Your task to perform on an android device: See recent photos Image 0: 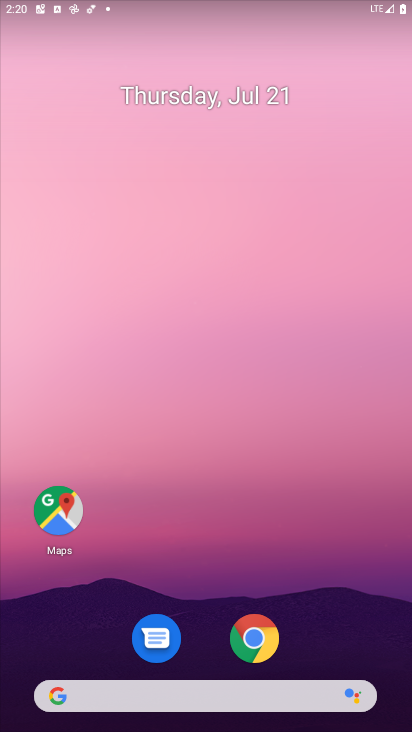
Step 0: drag from (235, 708) to (154, 114)
Your task to perform on an android device: See recent photos Image 1: 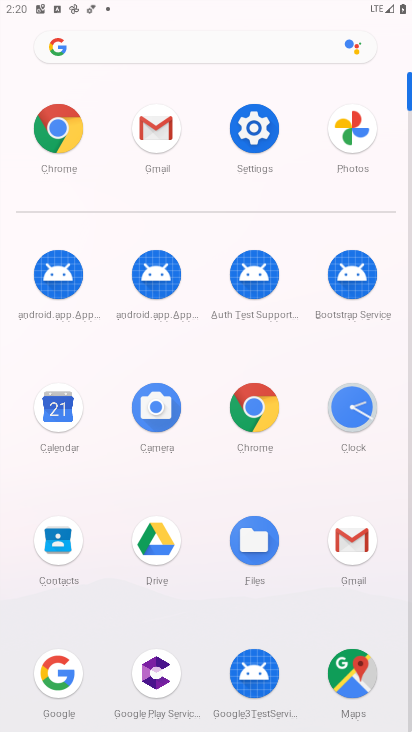
Step 1: click (344, 126)
Your task to perform on an android device: See recent photos Image 2: 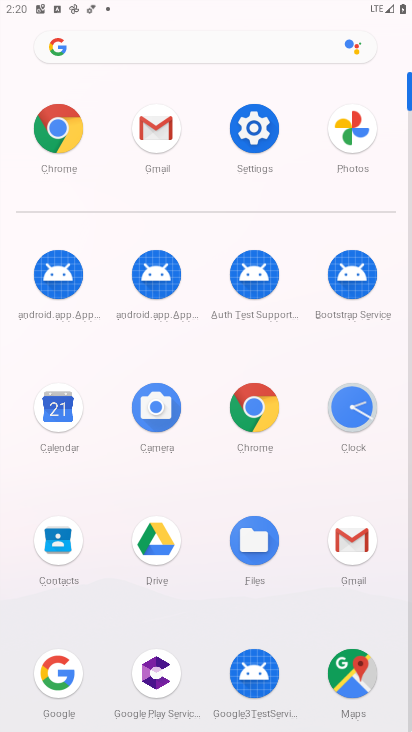
Step 2: click (344, 126)
Your task to perform on an android device: See recent photos Image 3: 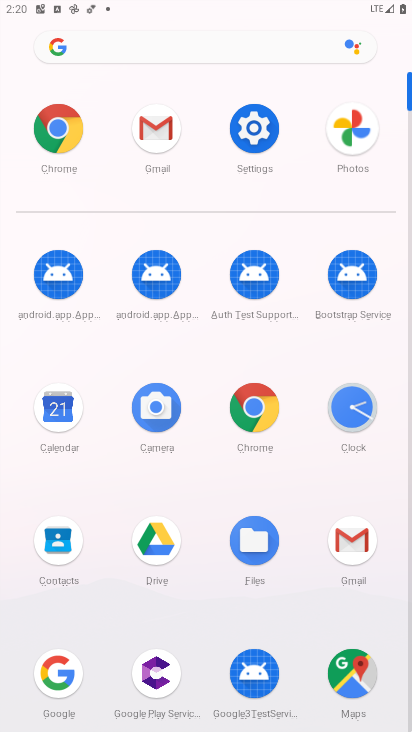
Step 3: click (344, 126)
Your task to perform on an android device: See recent photos Image 4: 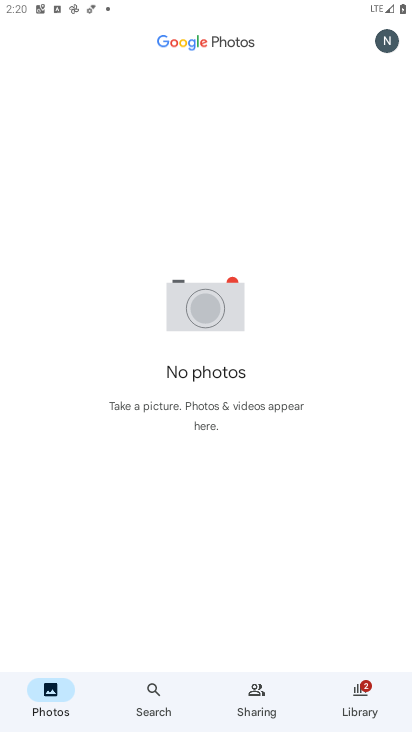
Step 4: task complete